Your task to perform on an android device: set the timer Image 0: 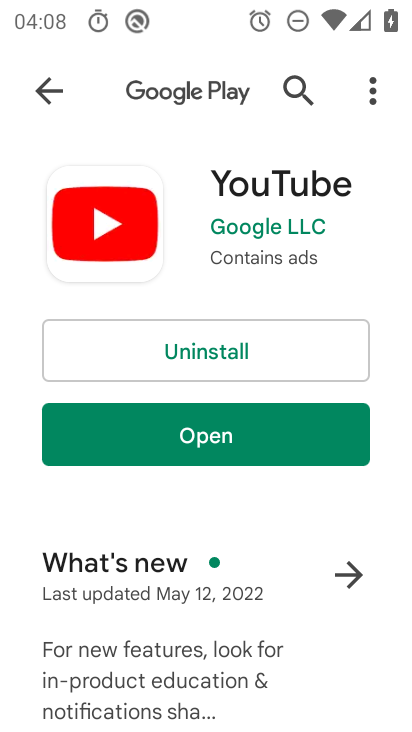
Step 0: press home button
Your task to perform on an android device: set the timer Image 1: 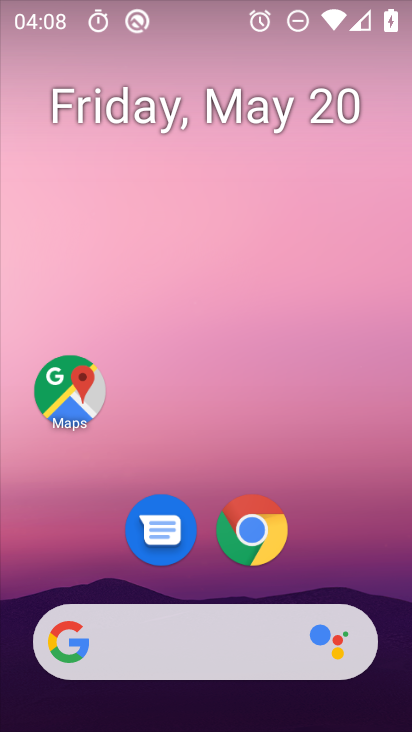
Step 1: drag from (386, 509) to (372, 212)
Your task to perform on an android device: set the timer Image 2: 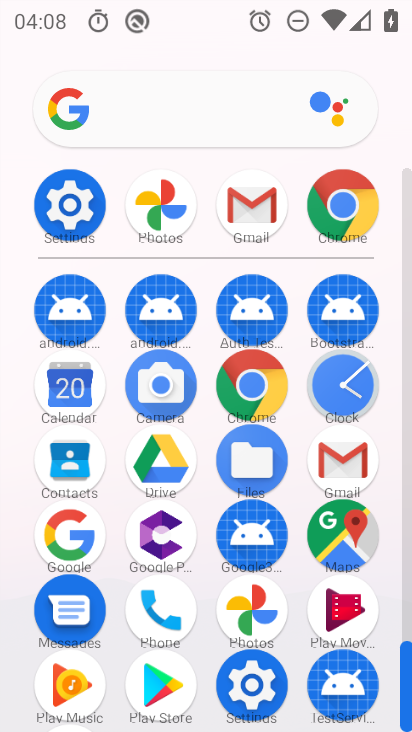
Step 2: click (330, 385)
Your task to perform on an android device: set the timer Image 3: 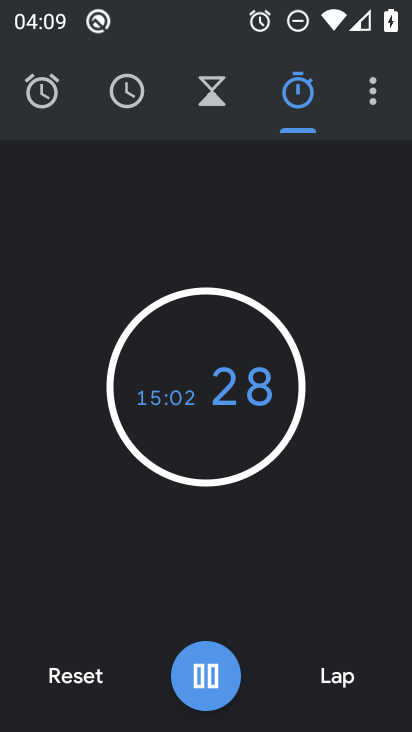
Step 3: click (80, 679)
Your task to perform on an android device: set the timer Image 4: 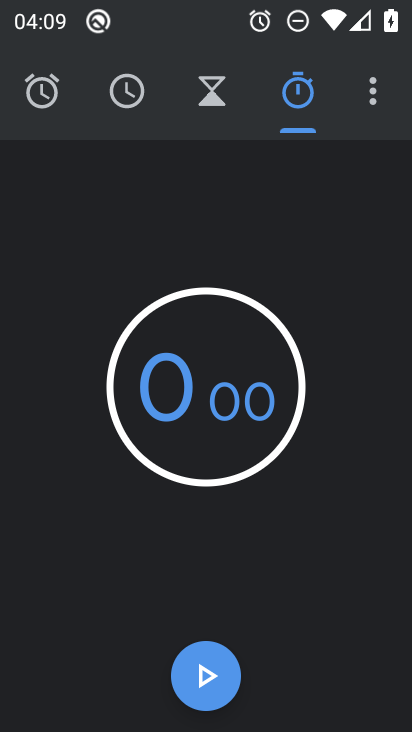
Step 4: click (214, 673)
Your task to perform on an android device: set the timer Image 5: 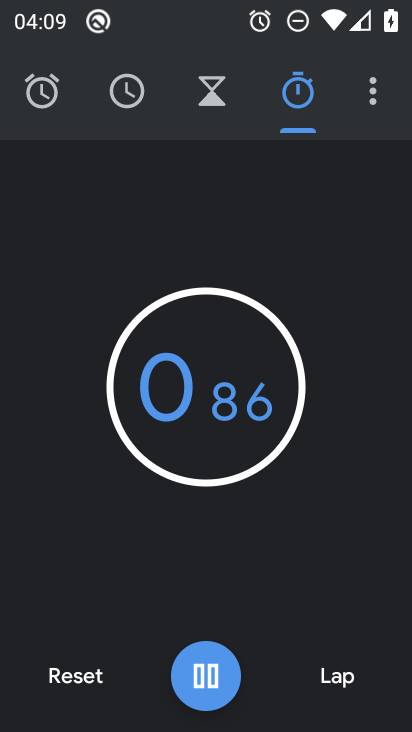
Step 5: task complete